Your task to perform on an android device: turn off javascript in the chrome app Image 0: 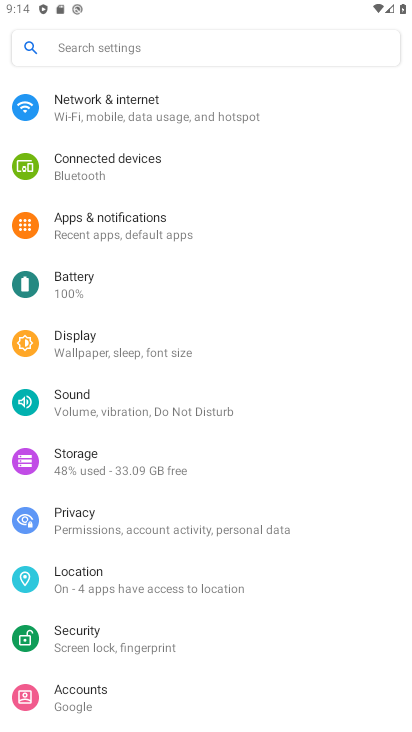
Step 0: press home button
Your task to perform on an android device: turn off javascript in the chrome app Image 1: 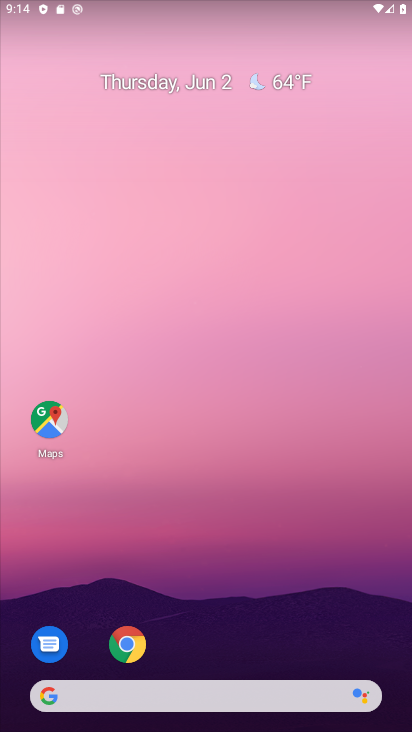
Step 1: click (133, 638)
Your task to perform on an android device: turn off javascript in the chrome app Image 2: 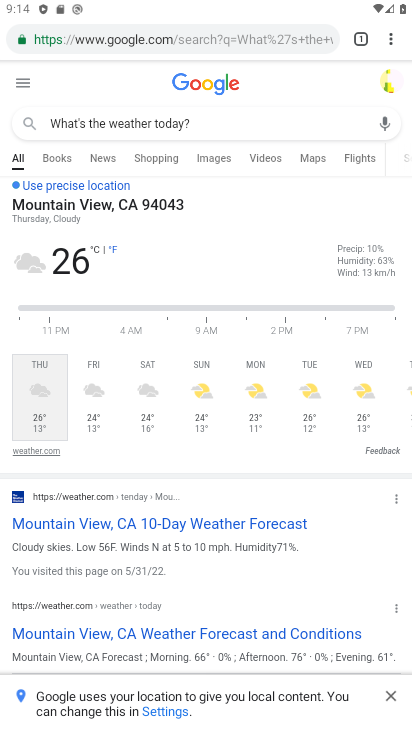
Step 2: click (384, 38)
Your task to perform on an android device: turn off javascript in the chrome app Image 3: 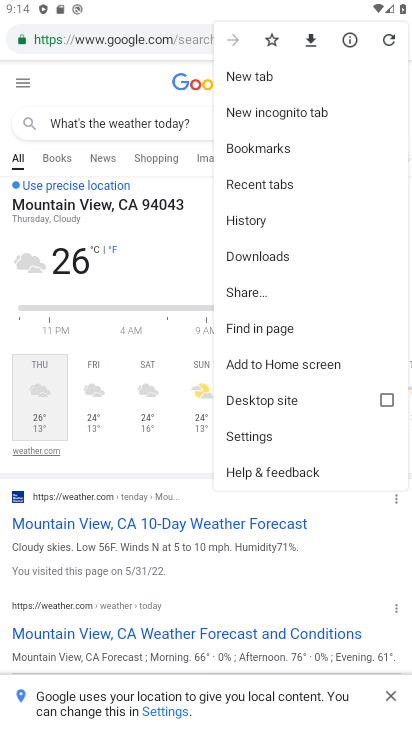
Step 3: click (273, 438)
Your task to perform on an android device: turn off javascript in the chrome app Image 4: 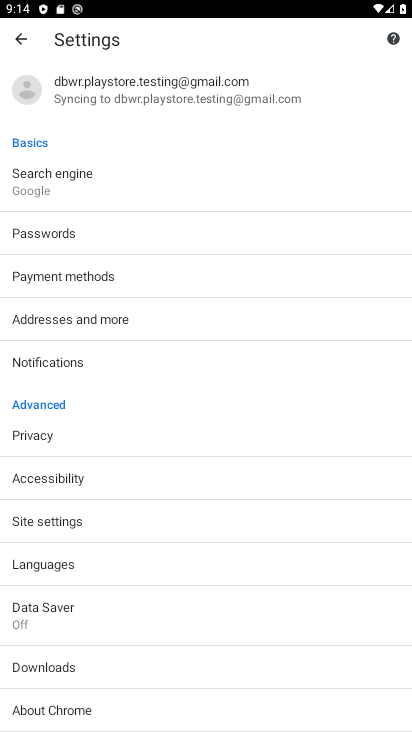
Step 4: click (101, 522)
Your task to perform on an android device: turn off javascript in the chrome app Image 5: 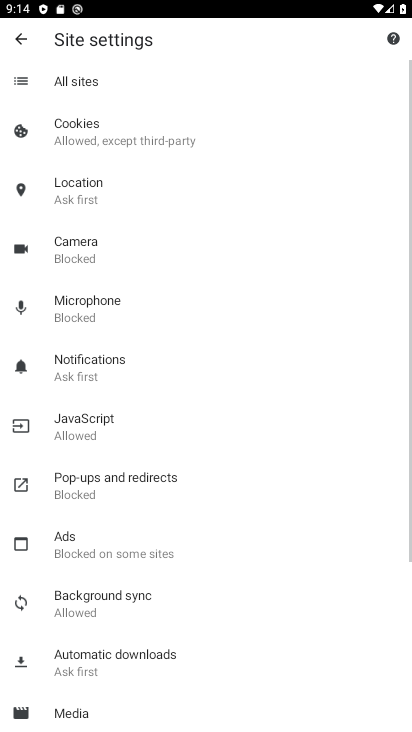
Step 5: click (92, 425)
Your task to perform on an android device: turn off javascript in the chrome app Image 6: 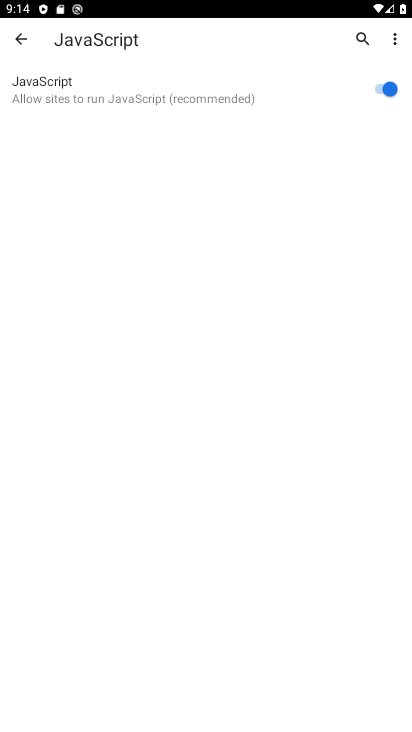
Step 6: click (158, 96)
Your task to perform on an android device: turn off javascript in the chrome app Image 7: 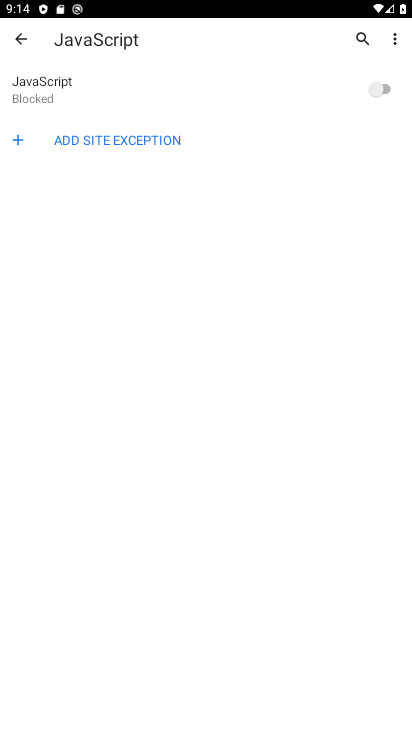
Step 7: task complete